Your task to perform on an android device: toggle translation in the chrome app Image 0: 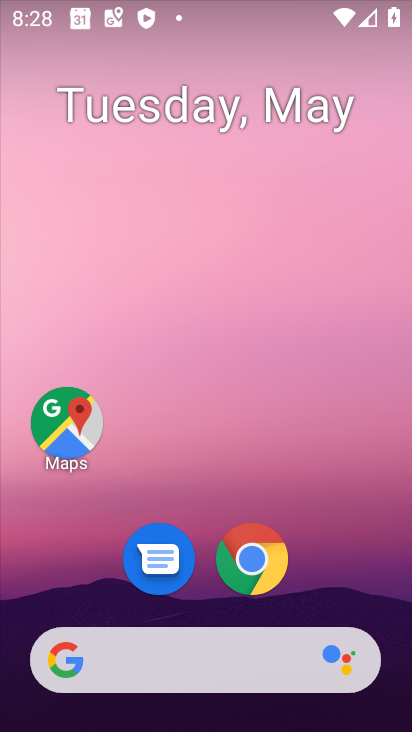
Step 0: click (261, 558)
Your task to perform on an android device: toggle translation in the chrome app Image 1: 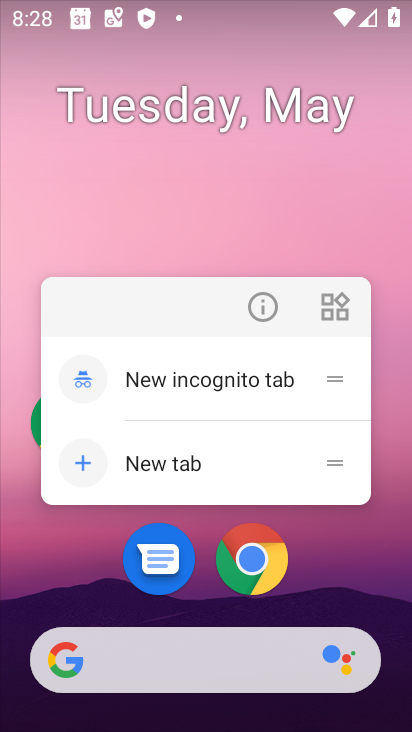
Step 1: click (260, 558)
Your task to perform on an android device: toggle translation in the chrome app Image 2: 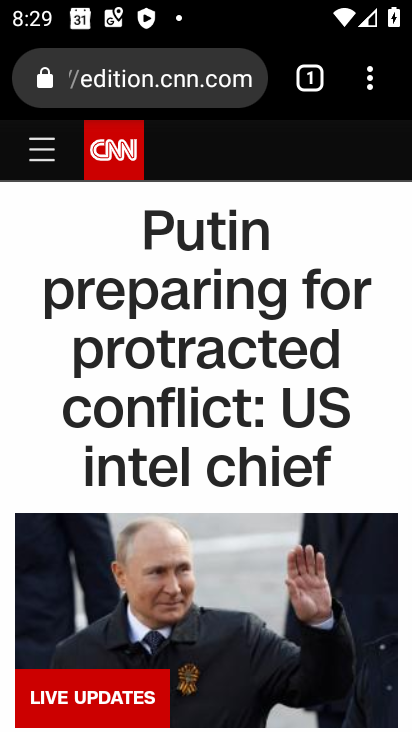
Step 2: drag from (362, 78) to (112, 607)
Your task to perform on an android device: toggle translation in the chrome app Image 3: 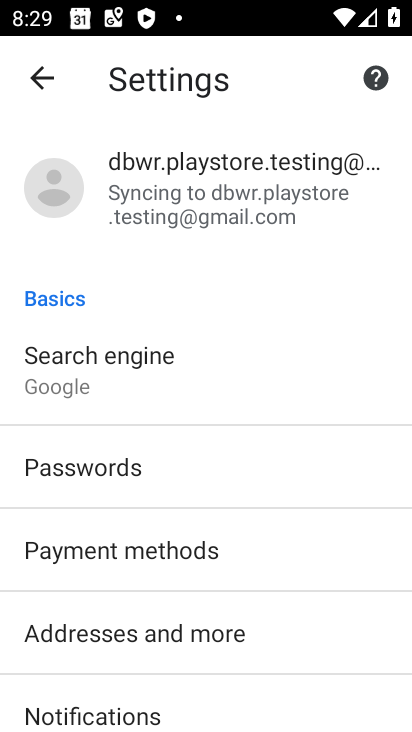
Step 3: drag from (109, 664) to (251, 168)
Your task to perform on an android device: toggle translation in the chrome app Image 4: 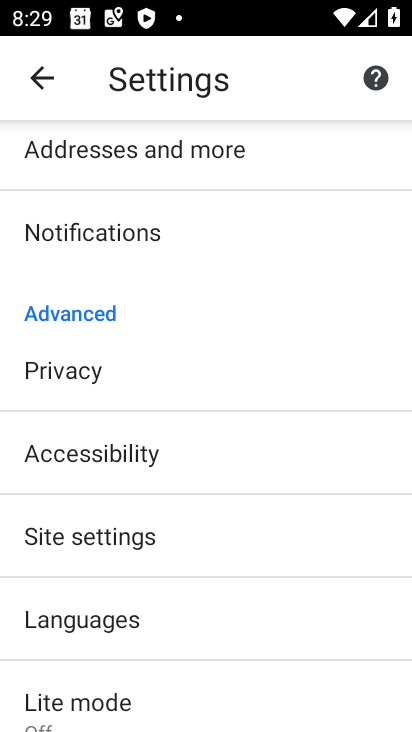
Step 4: click (86, 642)
Your task to perform on an android device: toggle translation in the chrome app Image 5: 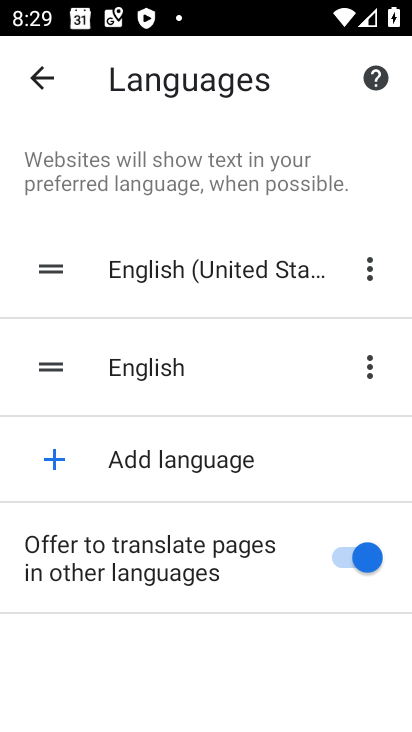
Step 5: click (359, 559)
Your task to perform on an android device: toggle translation in the chrome app Image 6: 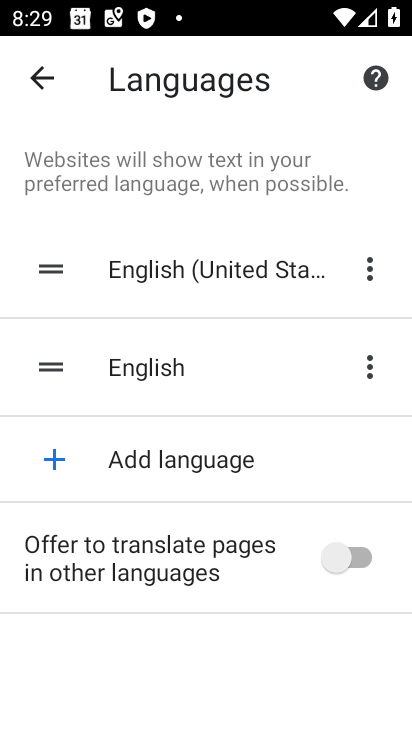
Step 6: task complete